Your task to perform on an android device: turn off improve location accuracy Image 0: 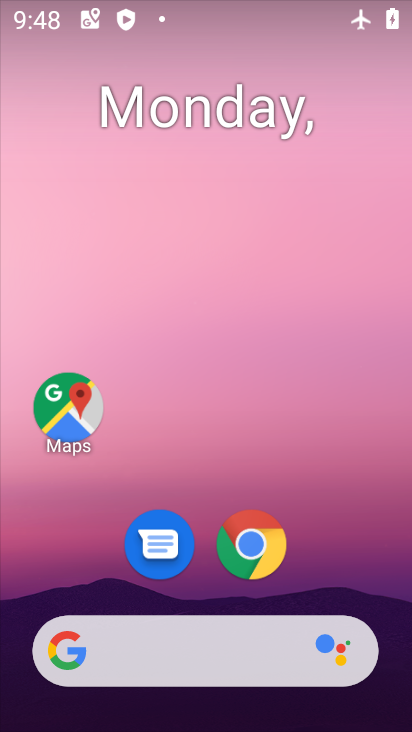
Step 0: drag from (284, 436) to (264, 89)
Your task to perform on an android device: turn off improve location accuracy Image 1: 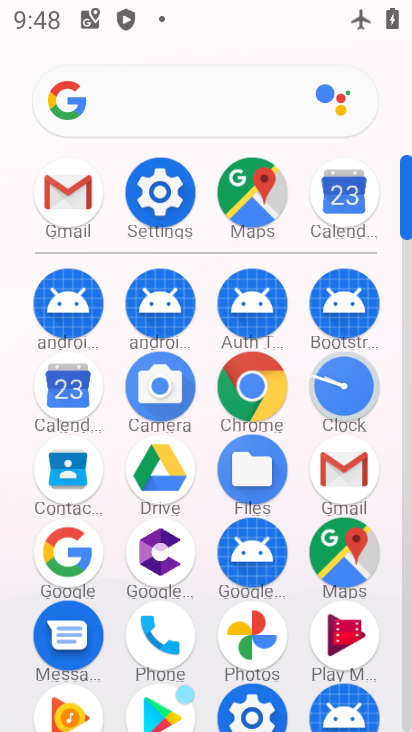
Step 1: click (160, 190)
Your task to perform on an android device: turn off improve location accuracy Image 2: 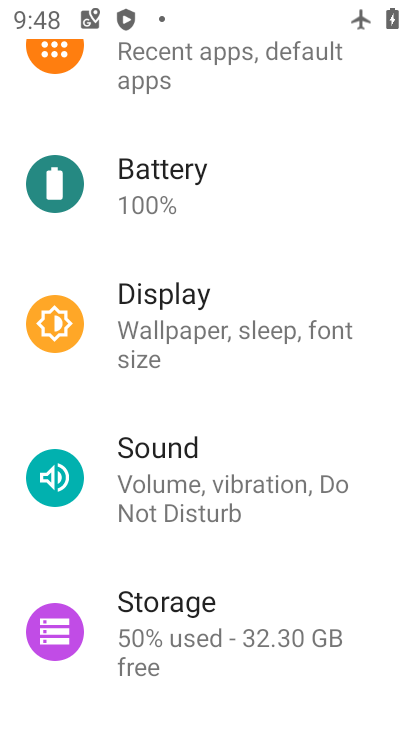
Step 2: drag from (255, 398) to (248, 122)
Your task to perform on an android device: turn off improve location accuracy Image 3: 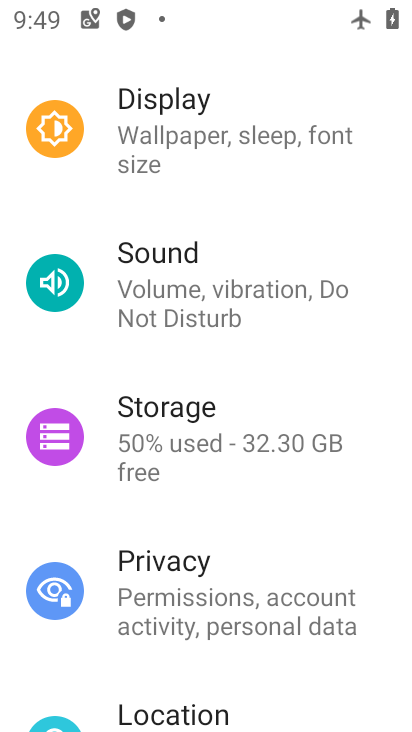
Step 3: drag from (234, 490) to (177, 96)
Your task to perform on an android device: turn off improve location accuracy Image 4: 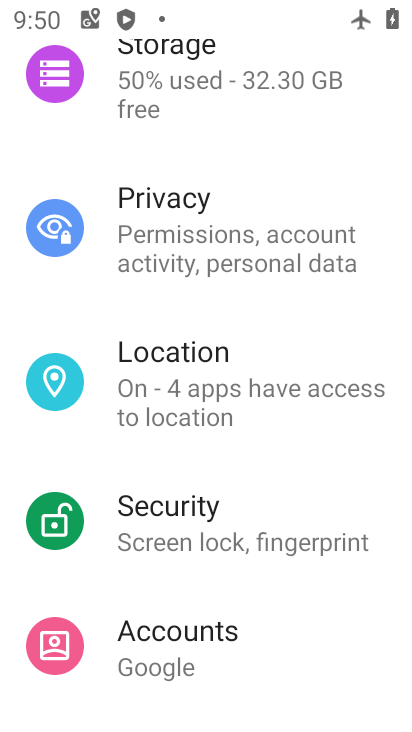
Step 4: click (198, 351)
Your task to perform on an android device: turn off improve location accuracy Image 5: 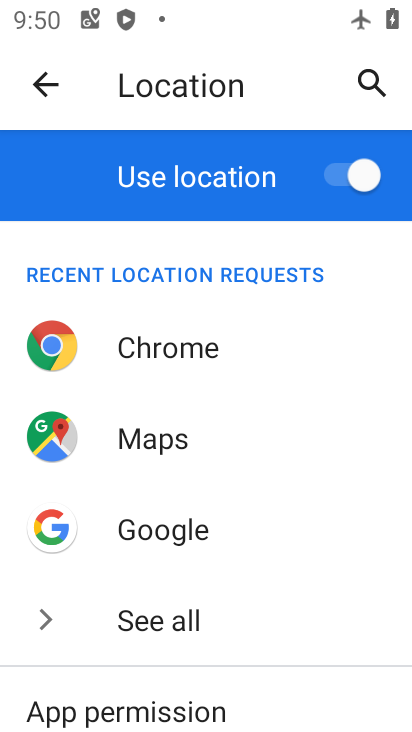
Step 5: drag from (255, 539) to (239, 157)
Your task to perform on an android device: turn off improve location accuracy Image 6: 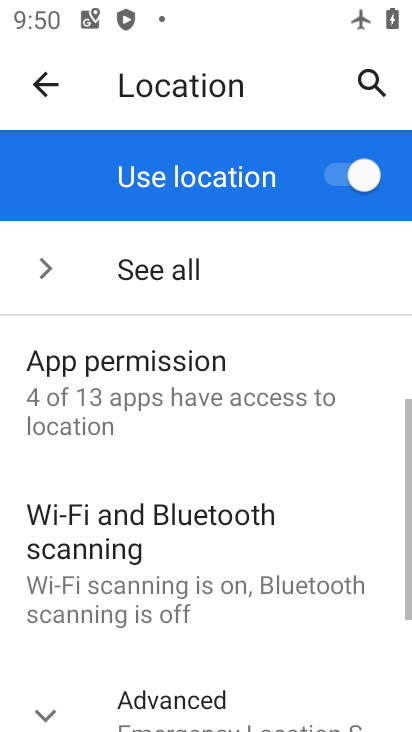
Step 6: drag from (294, 569) to (289, 244)
Your task to perform on an android device: turn off improve location accuracy Image 7: 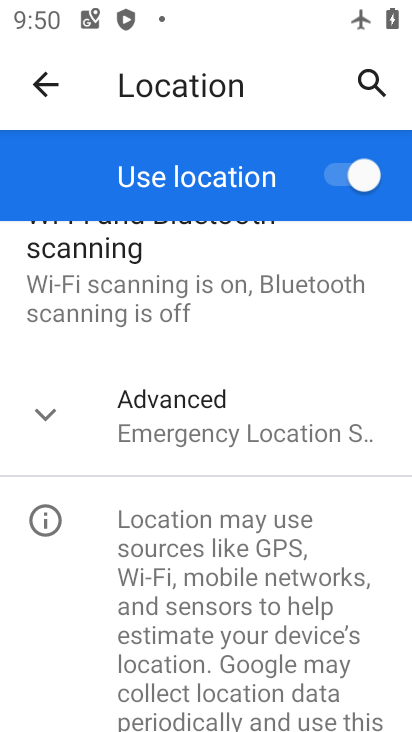
Step 7: click (70, 466)
Your task to perform on an android device: turn off improve location accuracy Image 8: 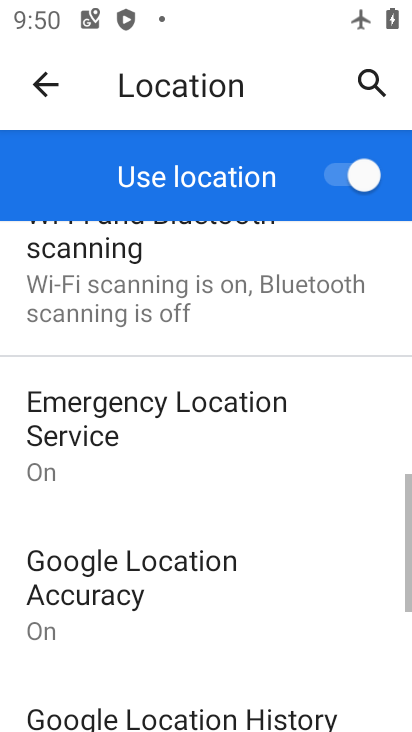
Step 8: click (50, 419)
Your task to perform on an android device: turn off improve location accuracy Image 9: 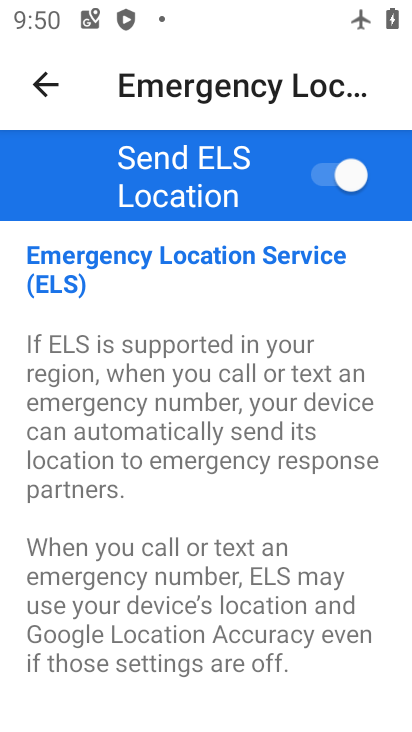
Step 9: click (47, 84)
Your task to perform on an android device: turn off improve location accuracy Image 10: 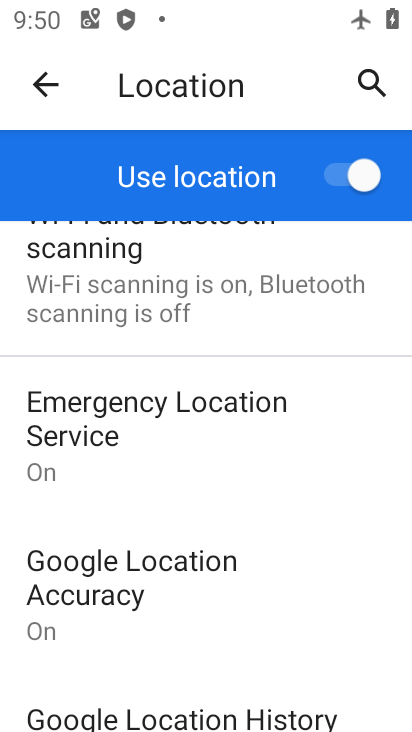
Step 10: click (180, 565)
Your task to perform on an android device: turn off improve location accuracy Image 11: 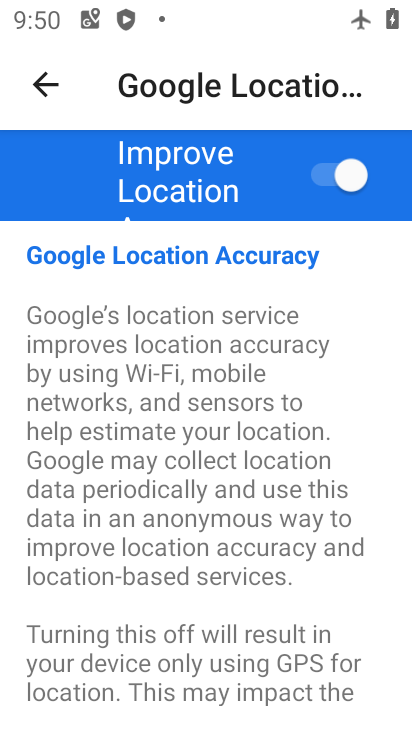
Step 11: click (349, 183)
Your task to perform on an android device: turn off improve location accuracy Image 12: 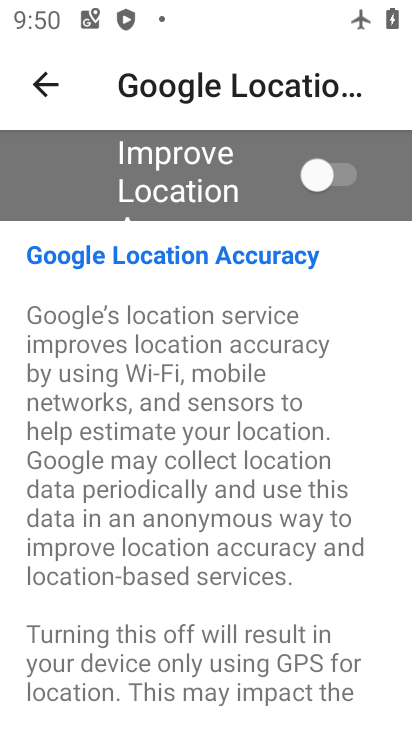
Step 12: task complete